Your task to perform on an android device: find photos in the google photos app Image 0: 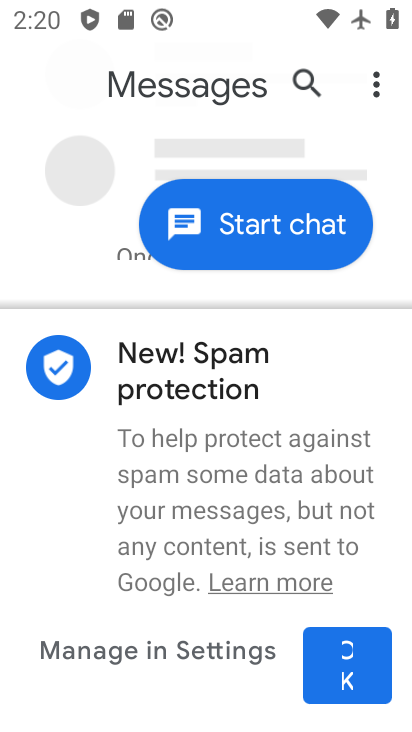
Step 0: press back button
Your task to perform on an android device: find photos in the google photos app Image 1: 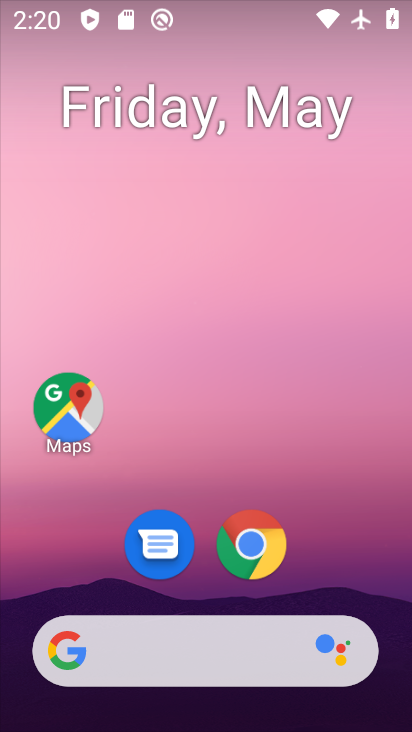
Step 1: drag from (192, 563) to (306, 31)
Your task to perform on an android device: find photos in the google photos app Image 2: 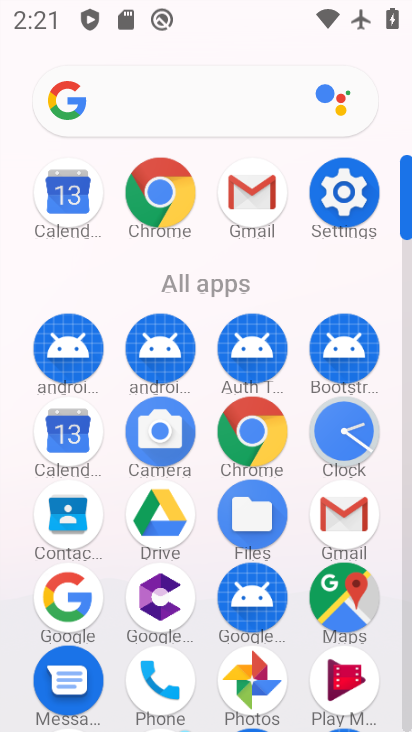
Step 2: click (252, 674)
Your task to perform on an android device: find photos in the google photos app Image 3: 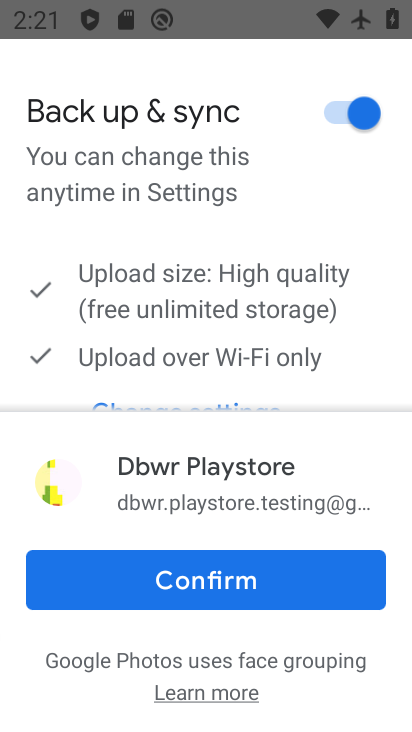
Step 3: press back button
Your task to perform on an android device: find photos in the google photos app Image 4: 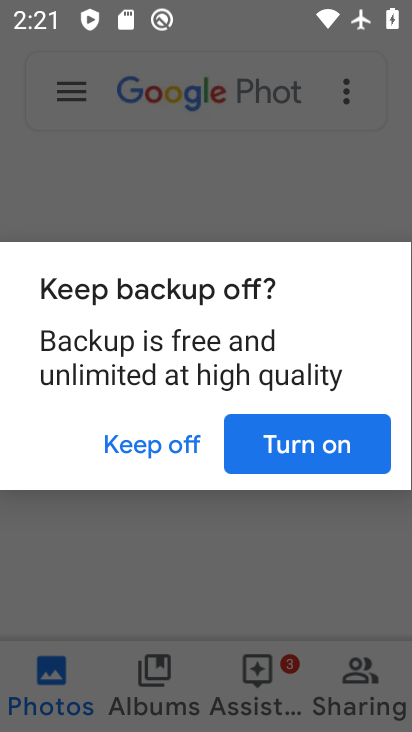
Step 4: click (97, 453)
Your task to perform on an android device: find photos in the google photos app Image 5: 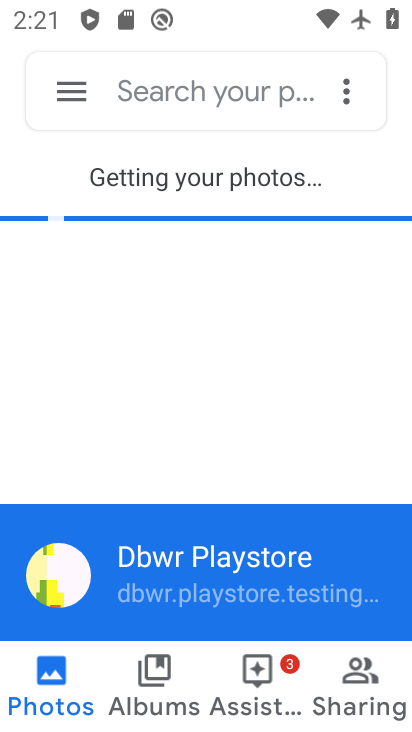
Step 5: click (69, 686)
Your task to perform on an android device: find photos in the google photos app Image 6: 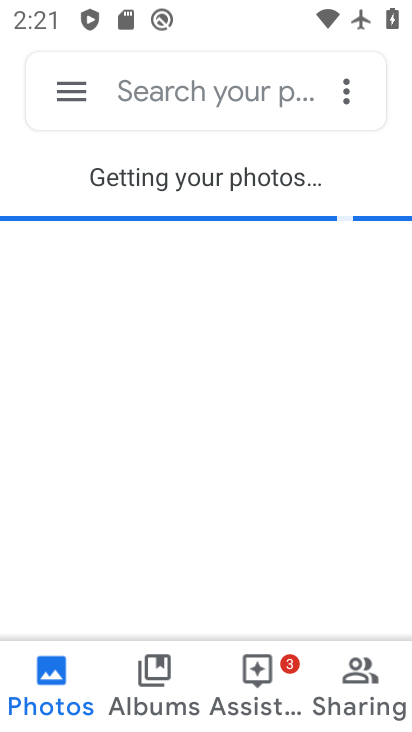
Step 6: task complete